Your task to perform on an android device: Go to Reddit.com Image 0: 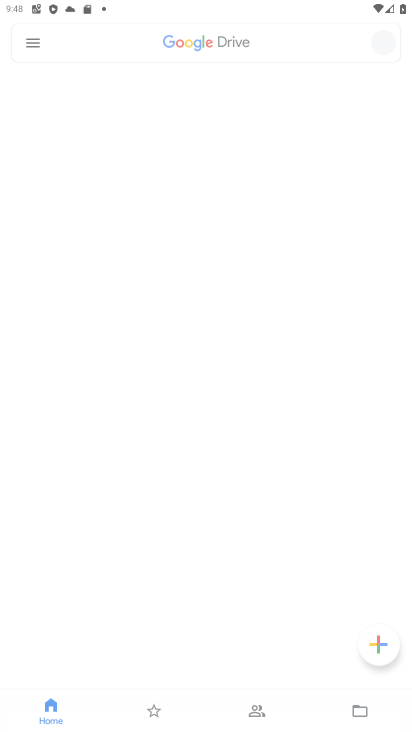
Step 0: drag from (248, 619) to (260, 135)
Your task to perform on an android device: Go to Reddit.com Image 1: 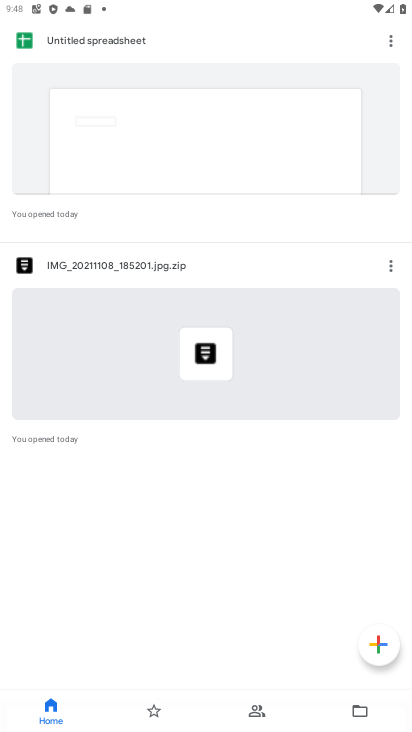
Step 1: press home button
Your task to perform on an android device: Go to Reddit.com Image 2: 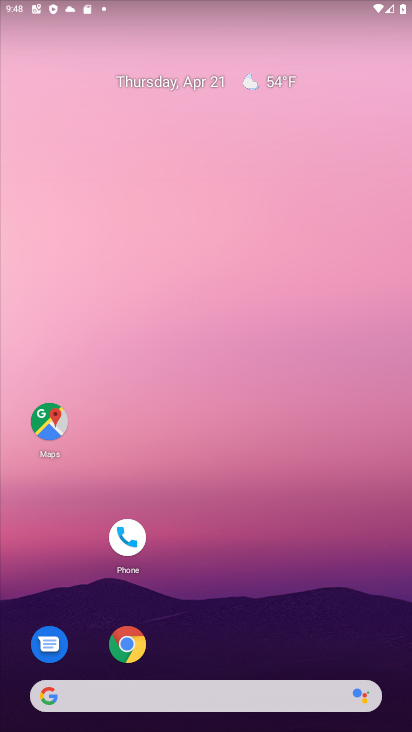
Step 2: drag from (259, 629) to (311, 173)
Your task to perform on an android device: Go to Reddit.com Image 3: 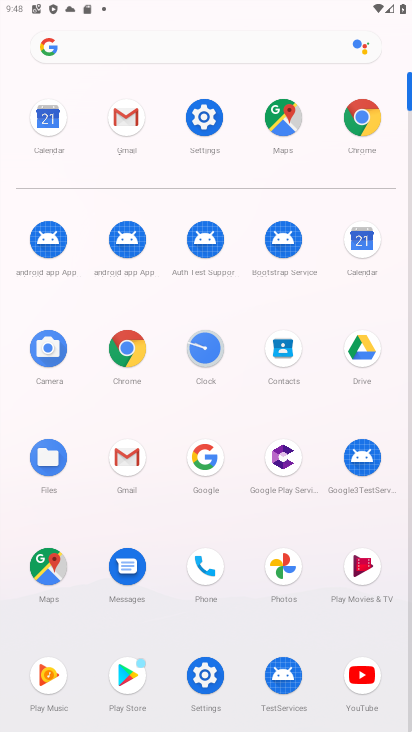
Step 3: click (132, 351)
Your task to perform on an android device: Go to Reddit.com Image 4: 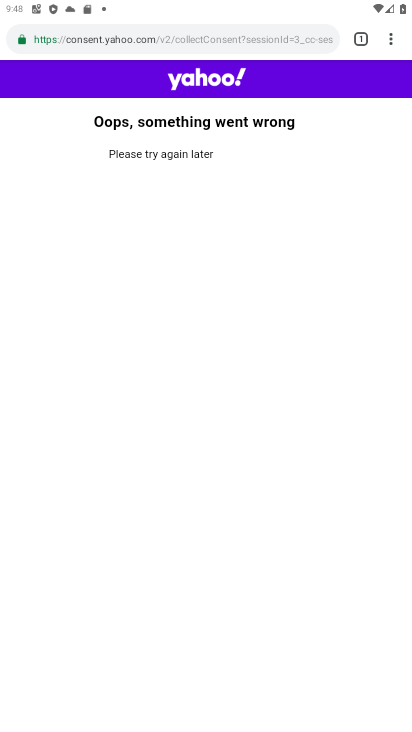
Step 4: click (201, 41)
Your task to perform on an android device: Go to Reddit.com Image 5: 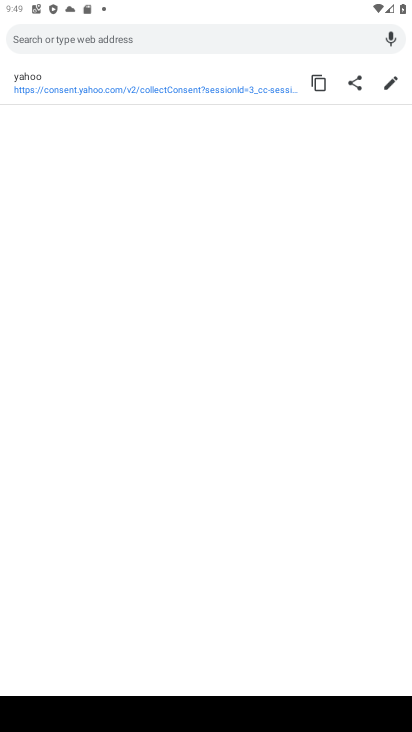
Step 5: type "reddit.com"
Your task to perform on an android device: Go to Reddit.com Image 6: 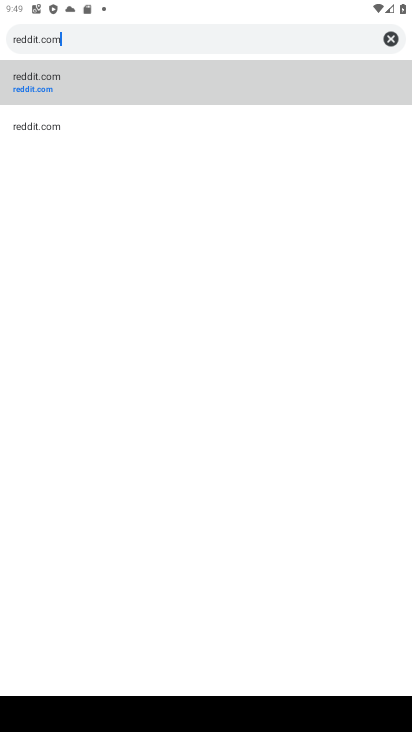
Step 6: click (31, 80)
Your task to perform on an android device: Go to Reddit.com Image 7: 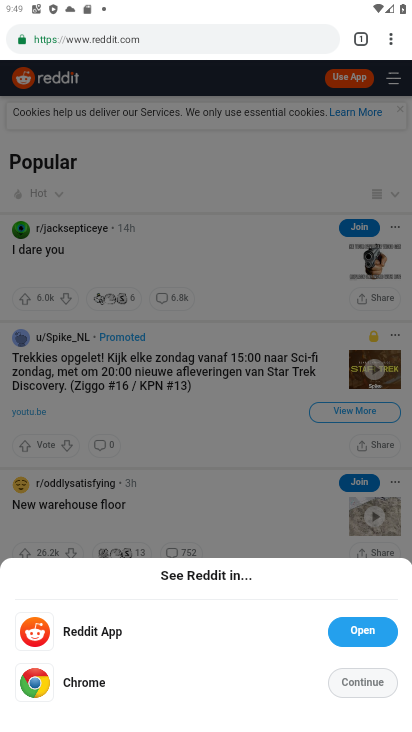
Step 7: task complete